Your task to perform on an android device: open app "Venmo" (install if not already installed) Image 0: 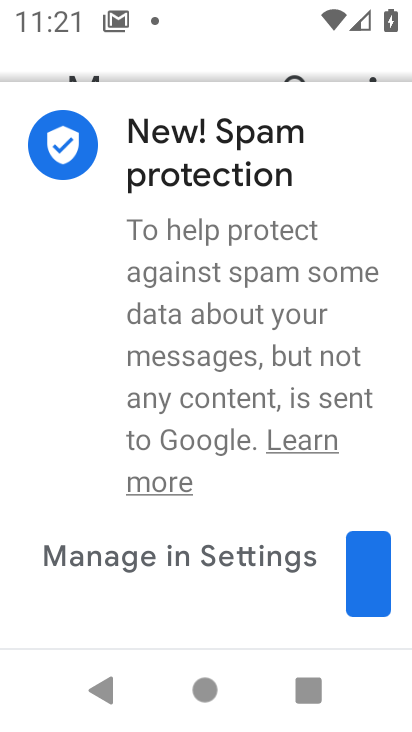
Step 0: press home button
Your task to perform on an android device: open app "Venmo" (install if not already installed) Image 1: 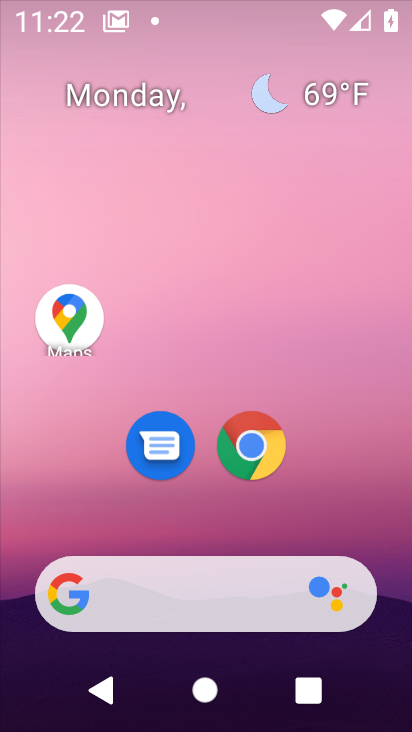
Step 1: drag from (198, 686) to (247, 241)
Your task to perform on an android device: open app "Venmo" (install if not already installed) Image 2: 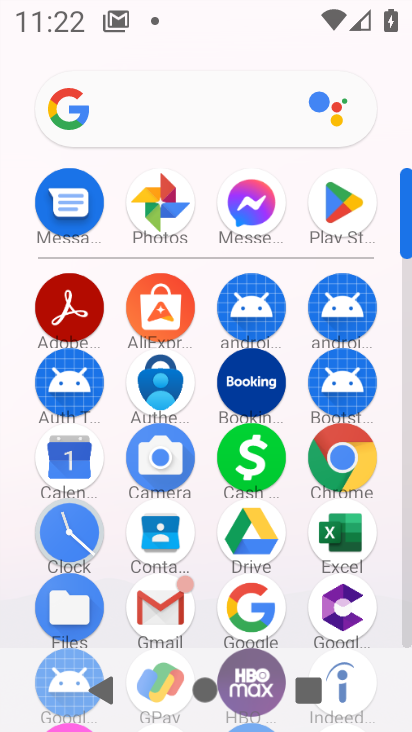
Step 2: click (373, 206)
Your task to perform on an android device: open app "Venmo" (install if not already installed) Image 3: 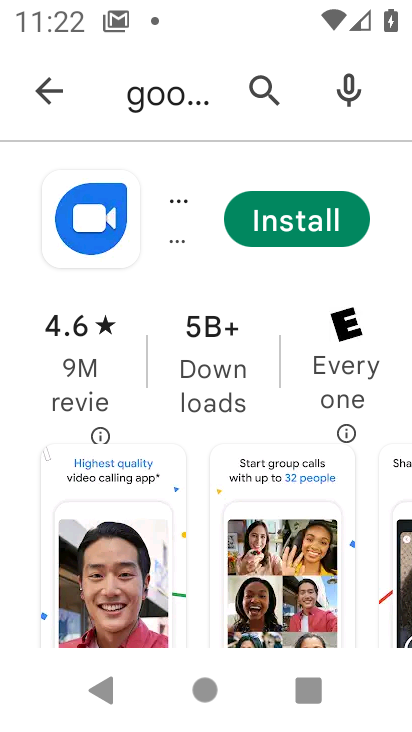
Step 3: click (53, 87)
Your task to perform on an android device: open app "Venmo" (install if not already installed) Image 4: 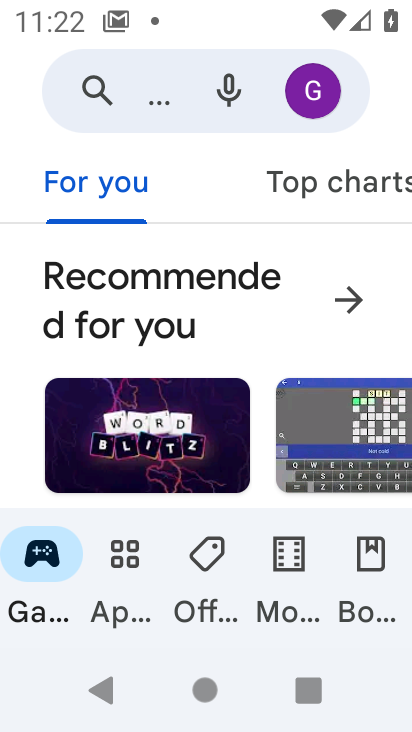
Step 4: click (87, 89)
Your task to perform on an android device: open app "Venmo" (install if not already installed) Image 5: 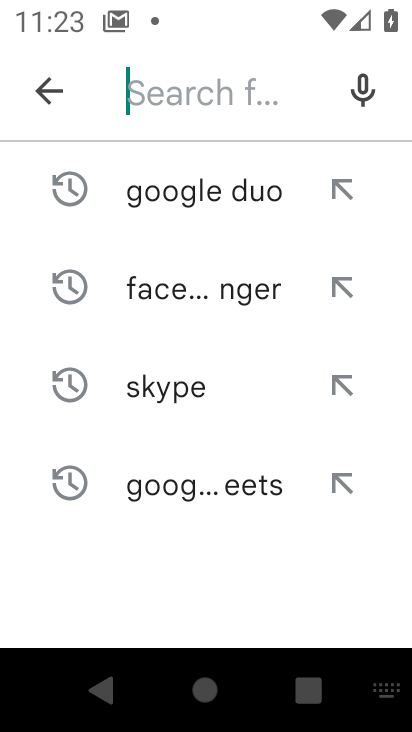
Step 5: type "Venmo"
Your task to perform on an android device: open app "Venmo" (install if not already installed) Image 6: 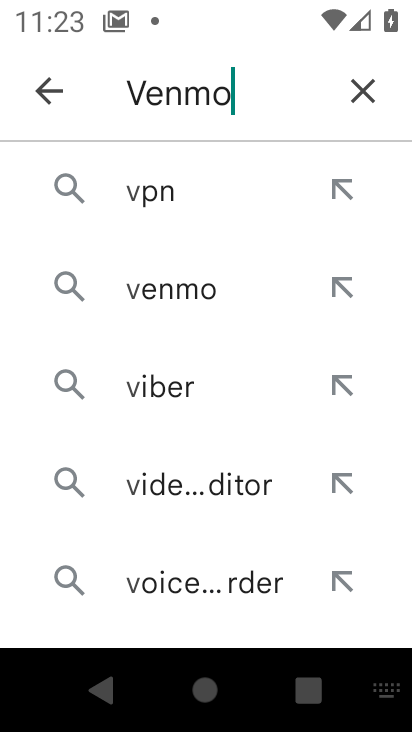
Step 6: type ""
Your task to perform on an android device: open app "Venmo" (install if not already installed) Image 7: 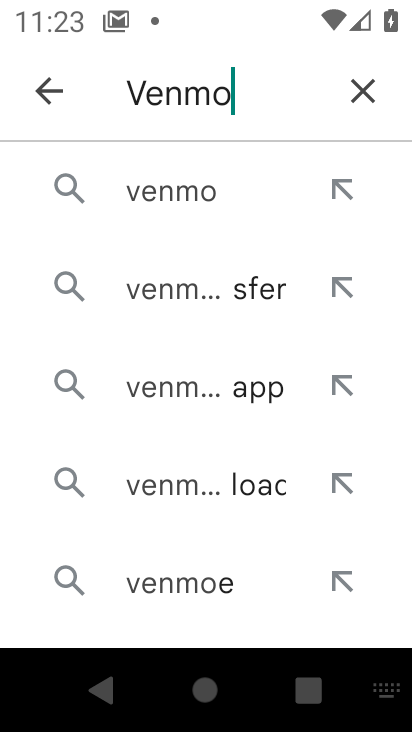
Step 7: click (215, 185)
Your task to perform on an android device: open app "Venmo" (install if not already installed) Image 8: 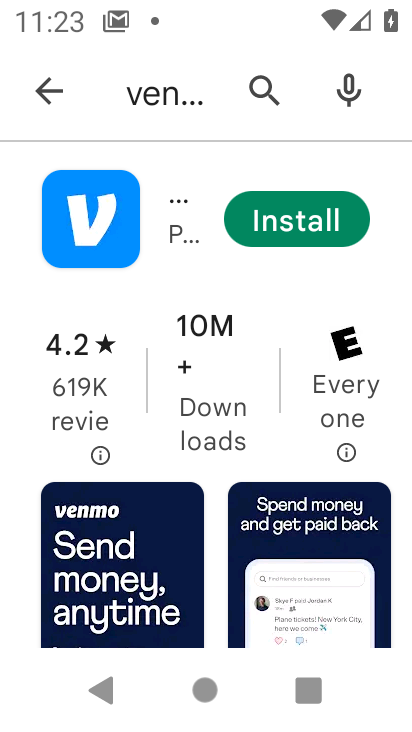
Step 8: click (337, 231)
Your task to perform on an android device: open app "Venmo" (install if not already installed) Image 9: 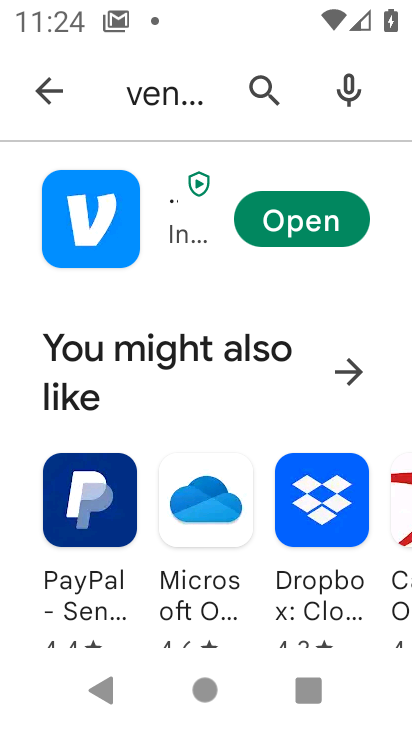
Step 9: click (351, 206)
Your task to perform on an android device: open app "Venmo" (install if not already installed) Image 10: 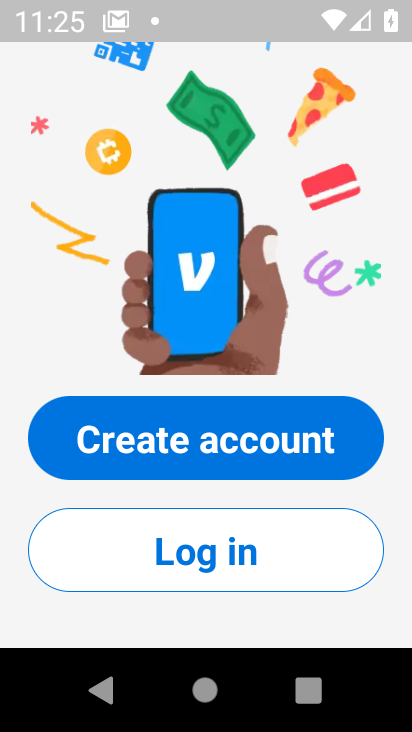
Step 10: task complete